Your task to perform on an android device: change the clock display to analog Image 0: 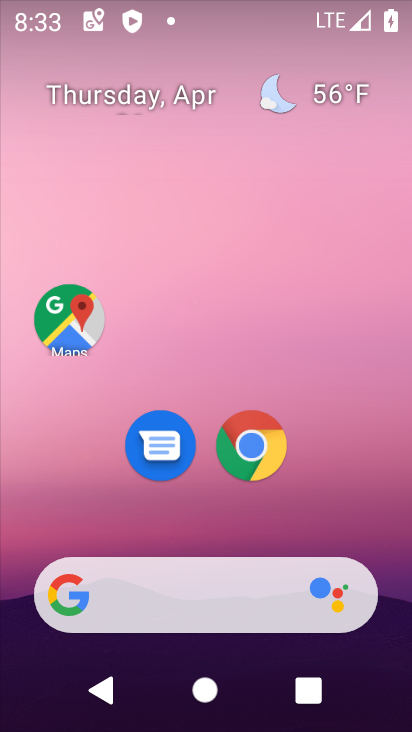
Step 0: drag from (362, 525) to (355, 37)
Your task to perform on an android device: change the clock display to analog Image 1: 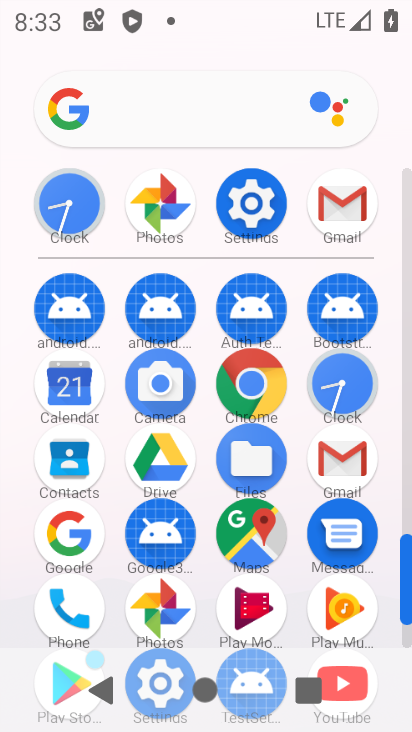
Step 1: click (341, 377)
Your task to perform on an android device: change the clock display to analog Image 2: 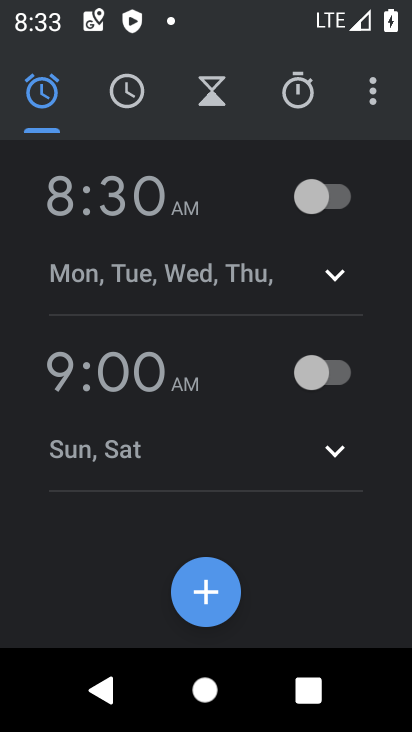
Step 2: click (375, 90)
Your task to perform on an android device: change the clock display to analog Image 3: 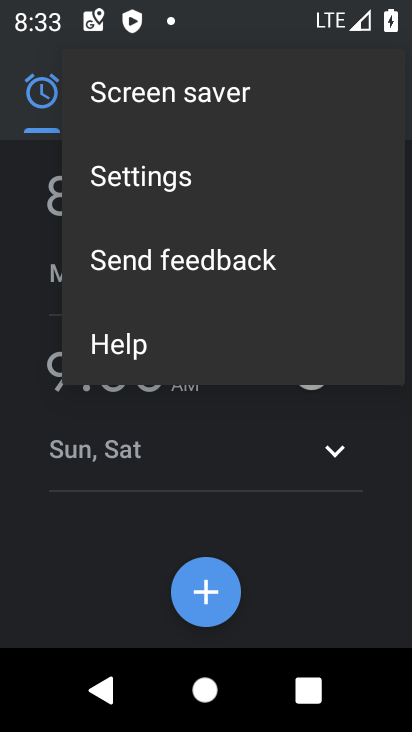
Step 3: click (172, 184)
Your task to perform on an android device: change the clock display to analog Image 4: 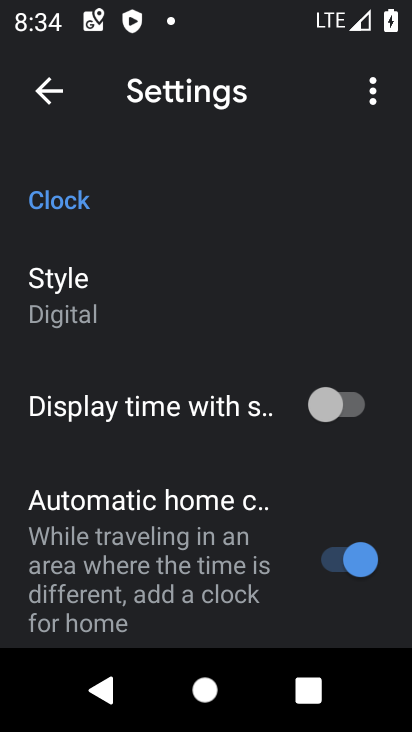
Step 4: click (82, 277)
Your task to perform on an android device: change the clock display to analog Image 5: 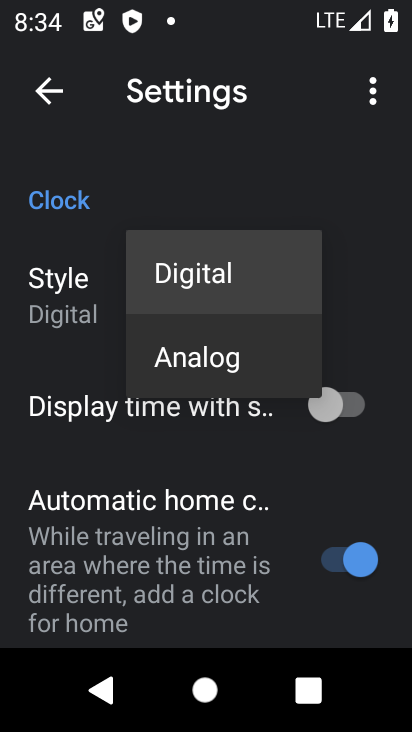
Step 5: click (173, 355)
Your task to perform on an android device: change the clock display to analog Image 6: 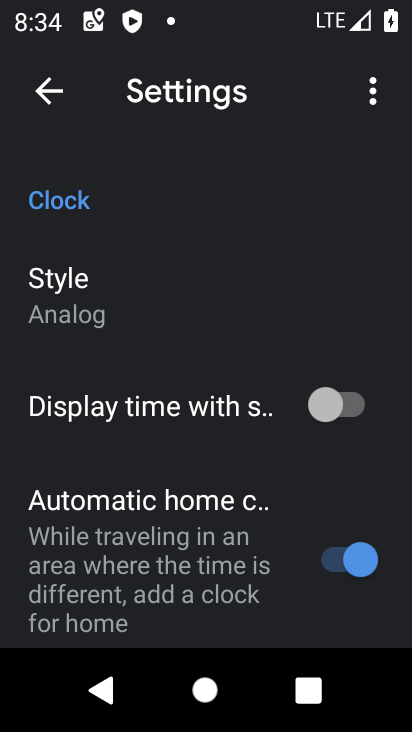
Step 6: task complete